Your task to perform on an android device: change the clock display to analog Image 0: 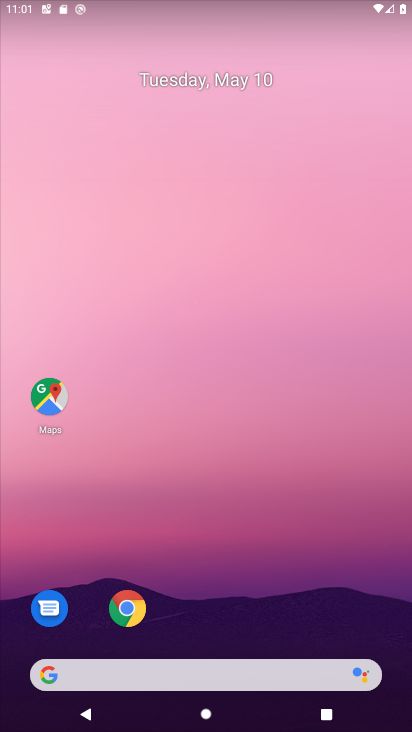
Step 0: drag from (235, 669) to (280, 416)
Your task to perform on an android device: change the clock display to analog Image 1: 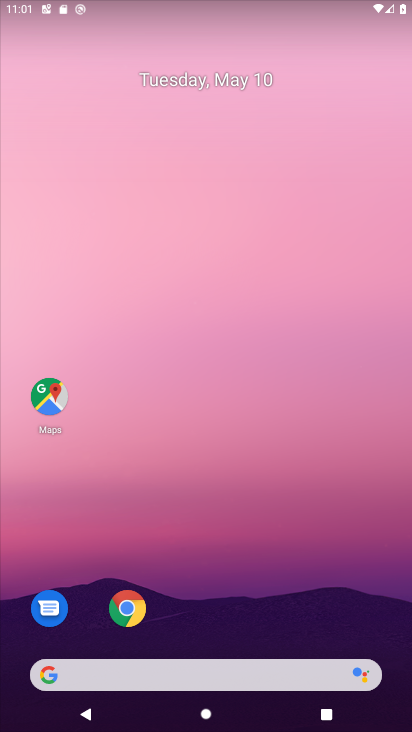
Step 1: drag from (176, 668) to (221, 269)
Your task to perform on an android device: change the clock display to analog Image 2: 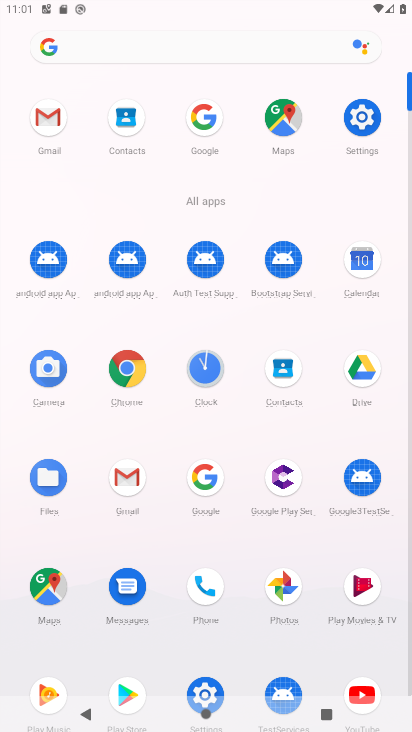
Step 2: click (207, 381)
Your task to perform on an android device: change the clock display to analog Image 3: 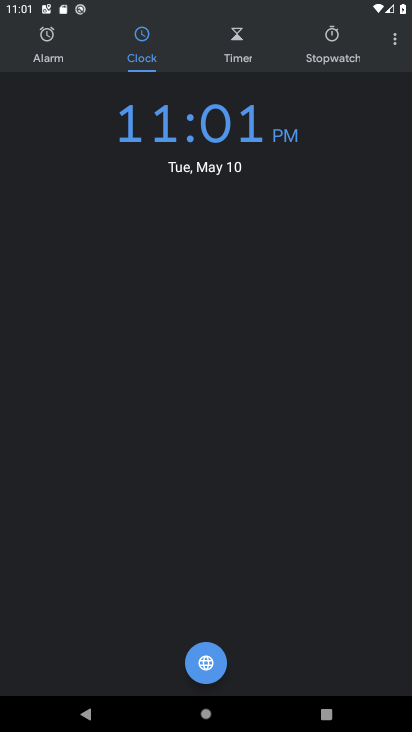
Step 3: click (390, 46)
Your task to perform on an android device: change the clock display to analog Image 4: 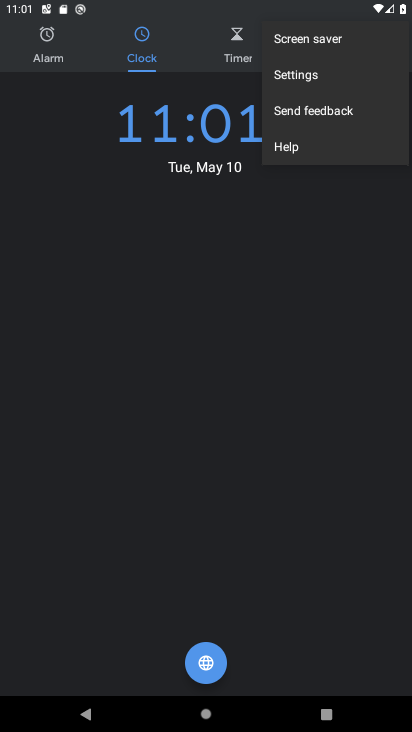
Step 4: click (297, 84)
Your task to perform on an android device: change the clock display to analog Image 5: 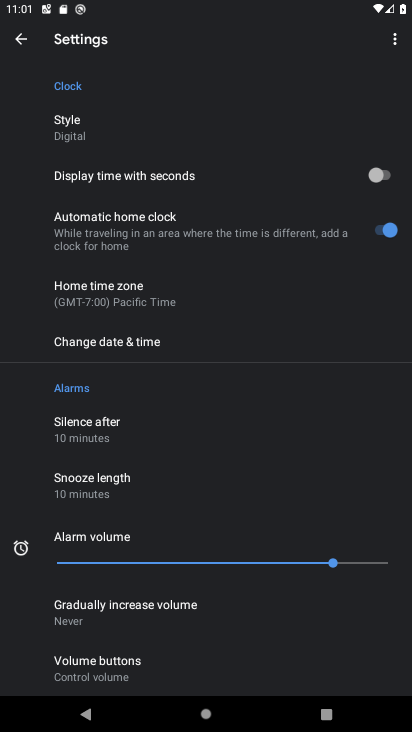
Step 5: click (86, 129)
Your task to perform on an android device: change the clock display to analog Image 6: 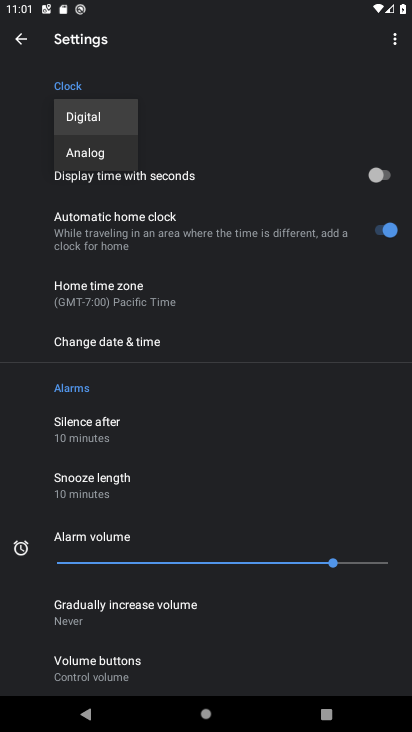
Step 6: click (113, 152)
Your task to perform on an android device: change the clock display to analog Image 7: 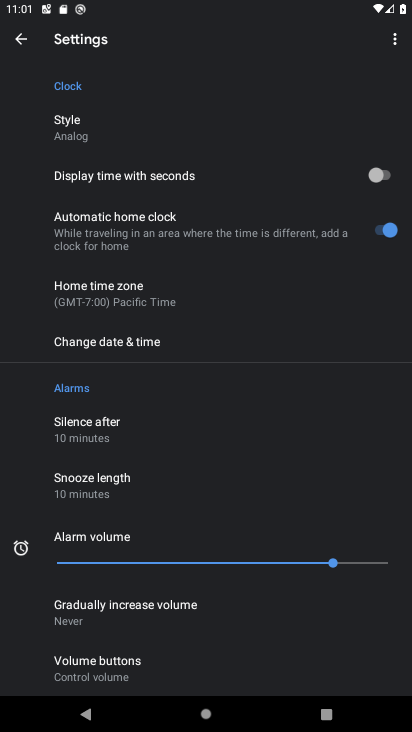
Step 7: task complete